Your task to perform on an android device: turn smart compose on in the gmail app Image 0: 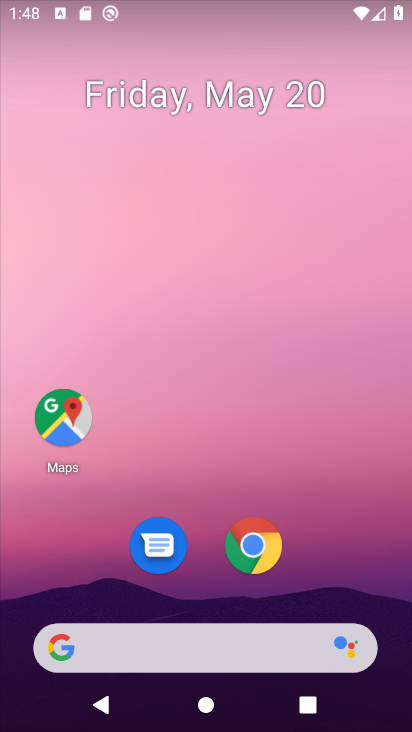
Step 0: click (372, 3)
Your task to perform on an android device: turn smart compose on in the gmail app Image 1: 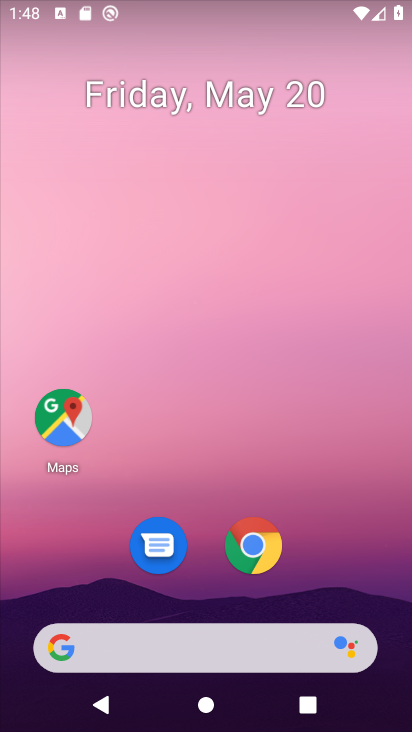
Step 1: drag from (272, 641) to (317, 110)
Your task to perform on an android device: turn smart compose on in the gmail app Image 2: 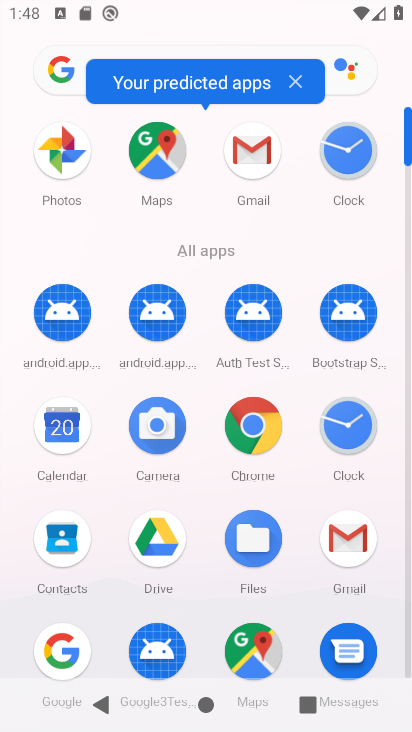
Step 2: click (349, 536)
Your task to perform on an android device: turn smart compose on in the gmail app Image 3: 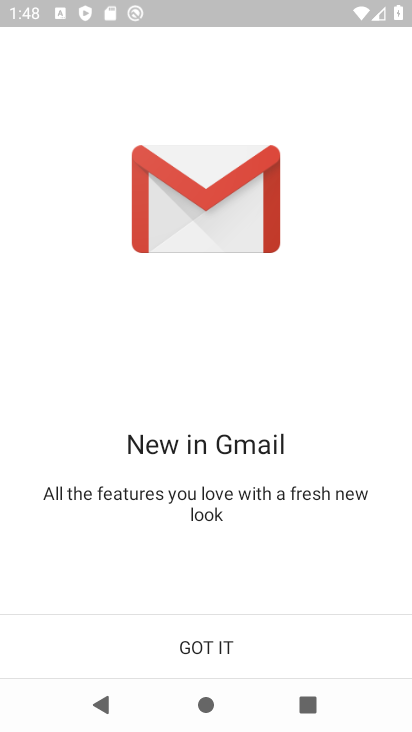
Step 3: click (264, 652)
Your task to perform on an android device: turn smart compose on in the gmail app Image 4: 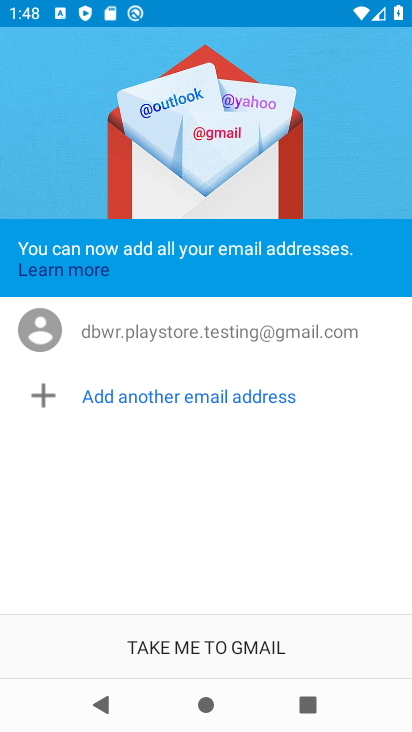
Step 4: click (264, 652)
Your task to perform on an android device: turn smart compose on in the gmail app Image 5: 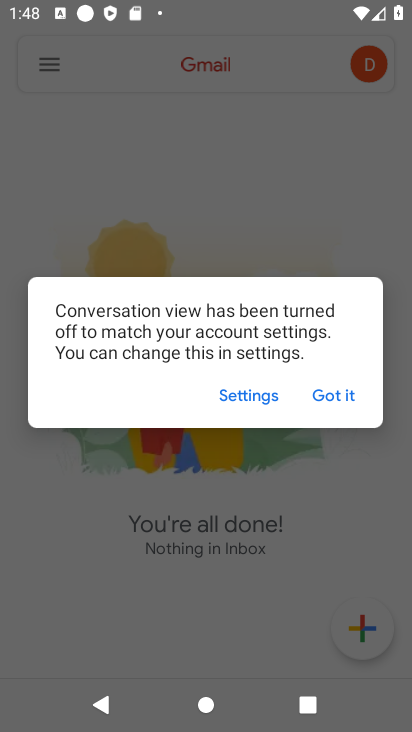
Step 5: click (326, 391)
Your task to perform on an android device: turn smart compose on in the gmail app Image 6: 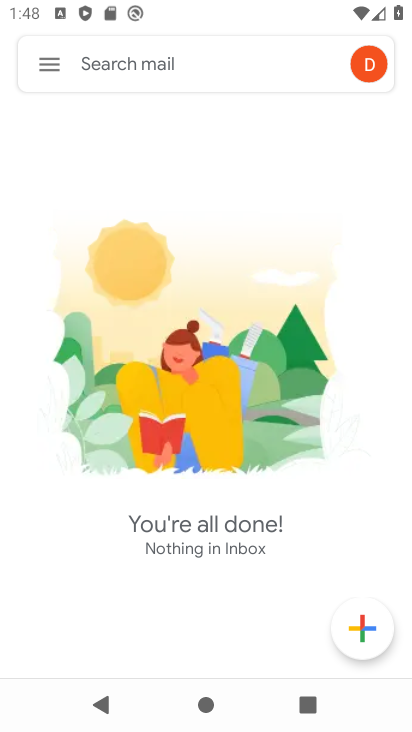
Step 6: click (46, 69)
Your task to perform on an android device: turn smart compose on in the gmail app Image 7: 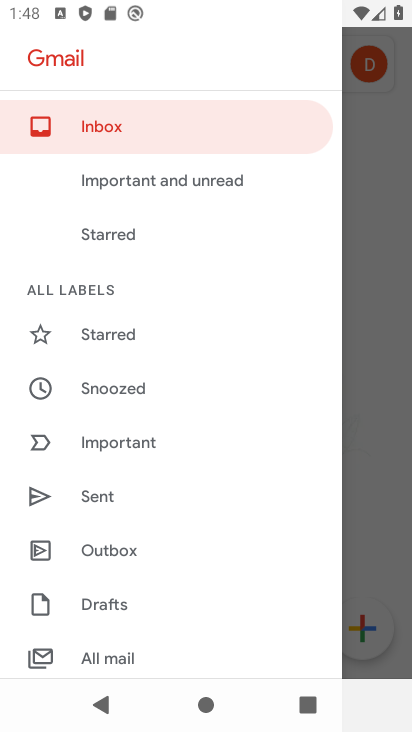
Step 7: drag from (148, 601) to (180, 145)
Your task to perform on an android device: turn smart compose on in the gmail app Image 8: 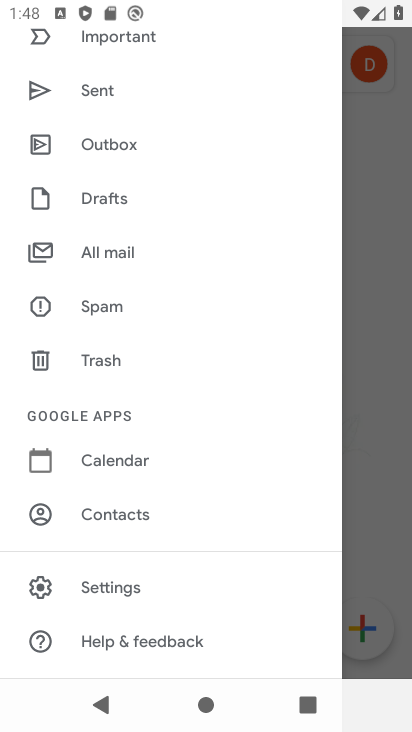
Step 8: click (129, 587)
Your task to perform on an android device: turn smart compose on in the gmail app Image 9: 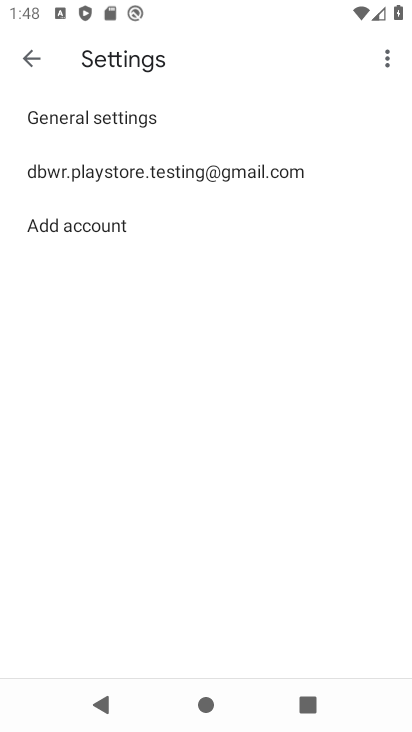
Step 9: click (172, 171)
Your task to perform on an android device: turn smart compose on in the gmail app Image 10: 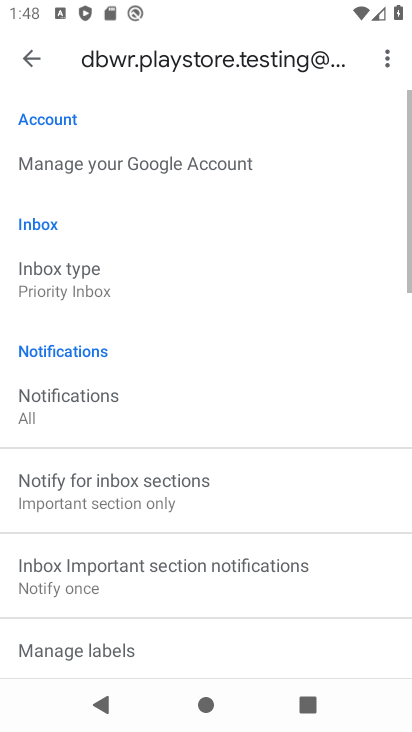
Step 10: task complete